Your task to perform on an android device: add a contact Image 0: 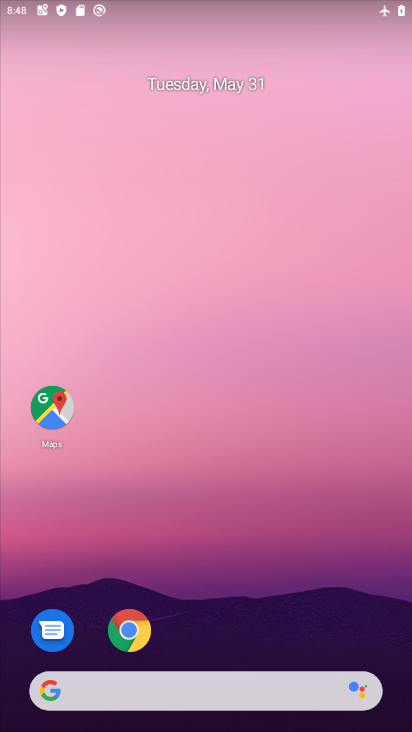
Step 0: drag from (266, 657) to (205, 198)
Your task to perform on an android device: add a contact Image 1: 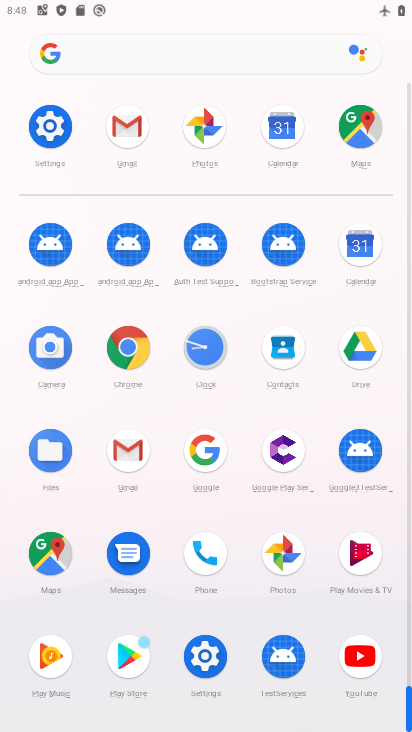
Step 1: click (212, 545)
Your task to perform on an android device: add a contact Image 2: 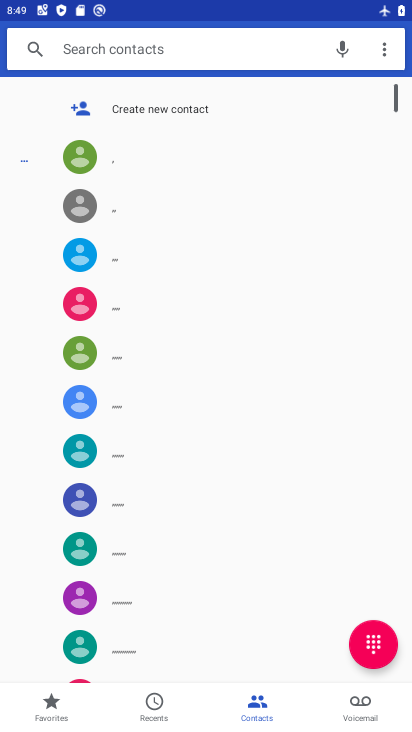
Step 2: click (133, 101)
Your task to perform on an android device: add a contact Image 3: 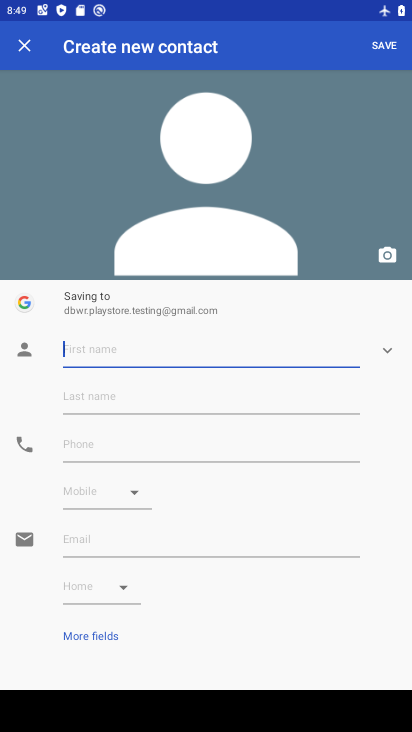
Step 3: click (190, 328)
Your task to perform on an android device: add a contact Image 4: 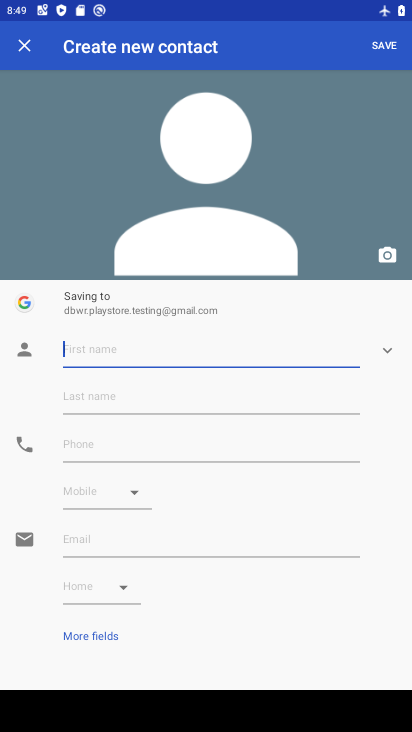
Step 4: type ""
Your task to perform on an android device: add a contact Image 5: 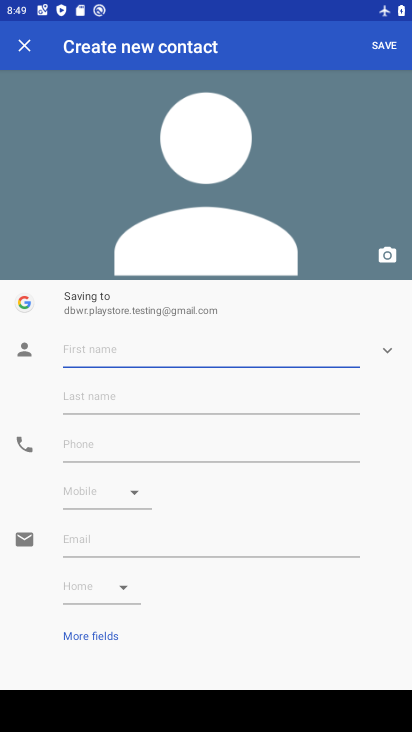
Step 5: type "shella "
Your task to perform on an android device: add a contact Image 6: 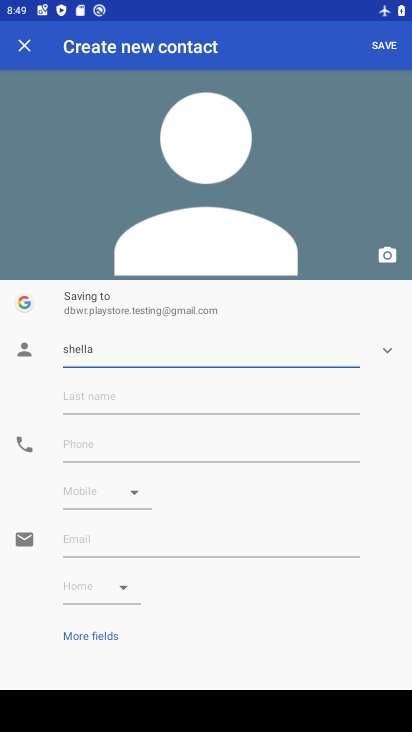
Step 6: click (163, 456)
Your task to perform on an android device: add a contact Image 7: 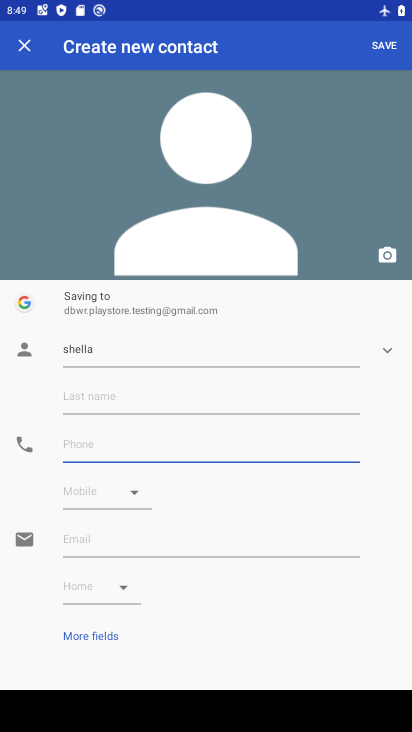
Step 7: type "82829282928292892"
Your task to perform on an android device: add a contact Image 8: 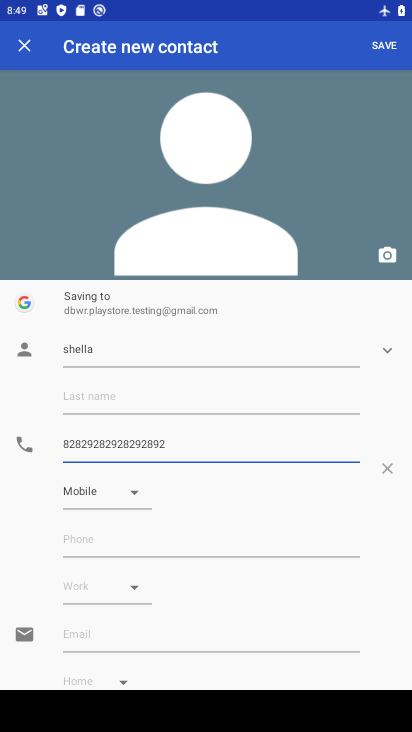
Step 8: click (370, 43)
Your task to perform on an android device: add a contact Image 9: 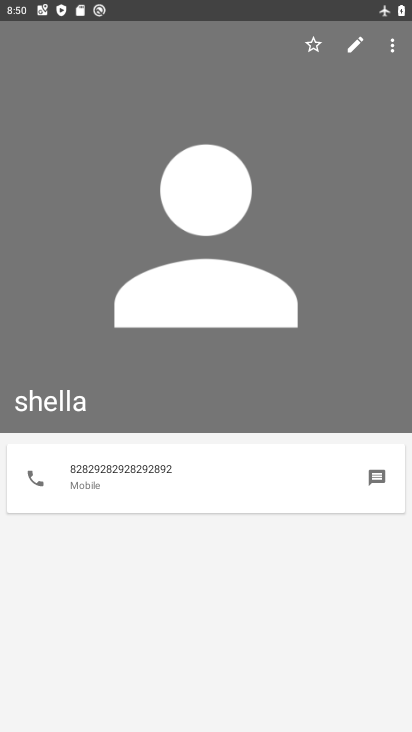
Step 9: task complete